Your task to perform on an android device: turn on airplane mode Image 0: 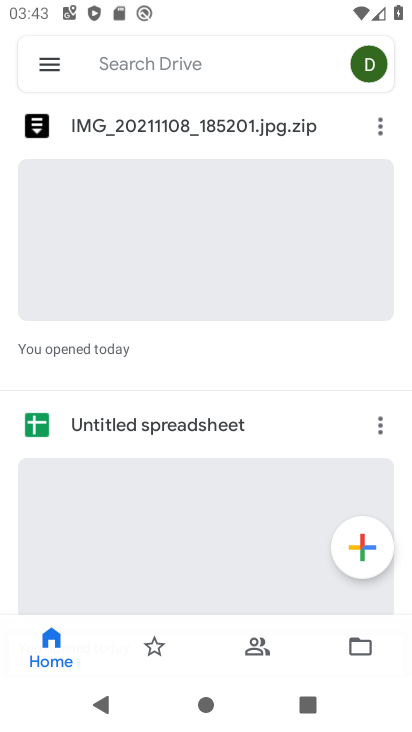
Step 0: press home button
Your task to perform on an android device: turn on airplane mode Image 1: 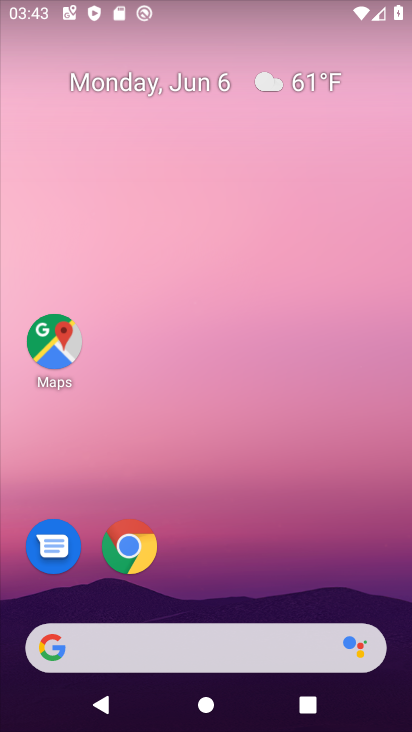
Step 1: drag from (190, 7) to (246, 453)
Your task to perform on an android device: turn on airplane mode Image 2: 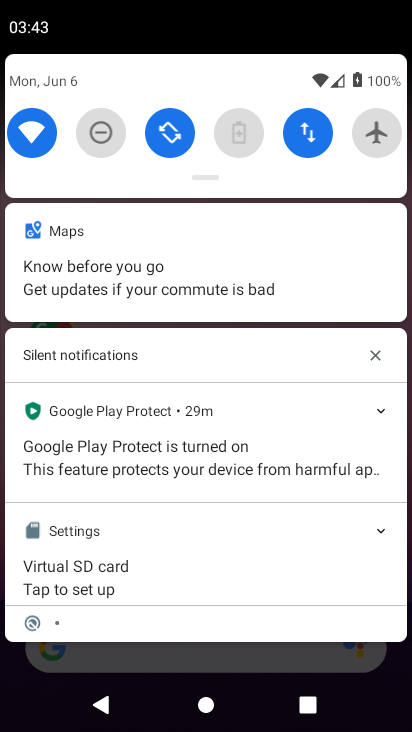
Step 2: drag from (207, 179) to (251, 583)
Your task to perform on an android device: turn on airplane mode Image 3: 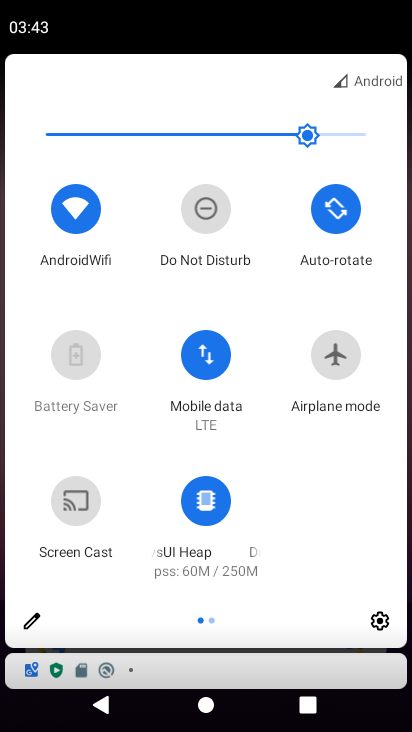
Step 3: click (328, 358)
Your task to perform on an android device: turn on airplane mode Image 4: 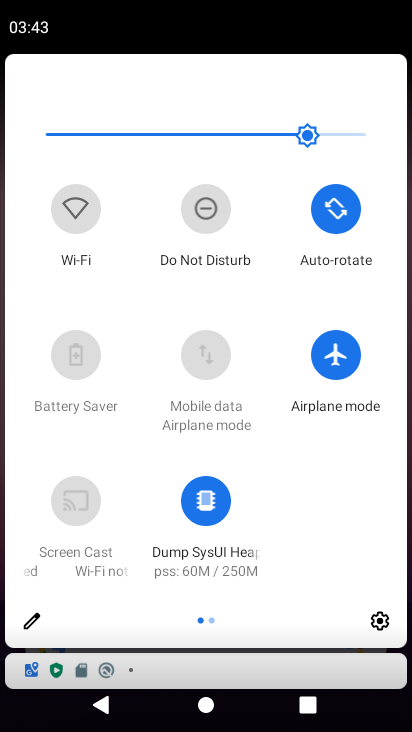
Step 4: task complete